Your task to perform on an android device: turn on translation in the chrome app Image 0: 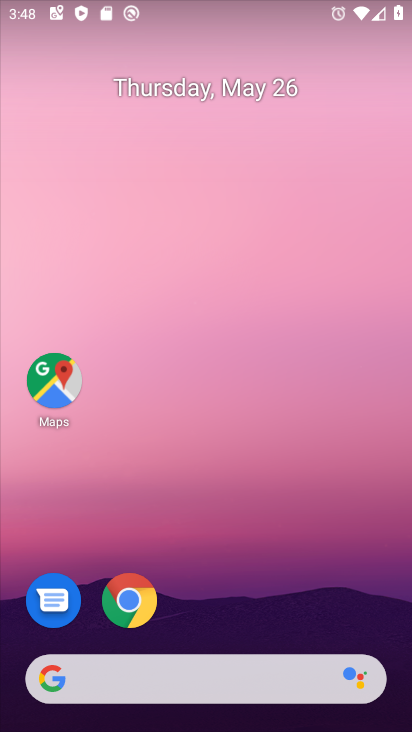
Step 0: click (124, 599)
Your task to perform on an android device: turn on translation in the chrome app Image 1: 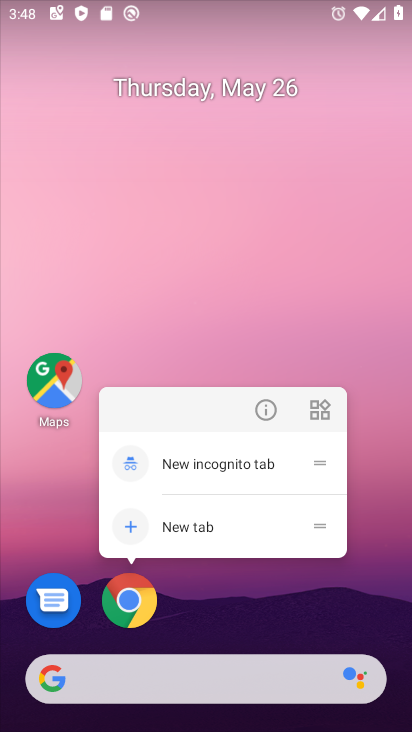
Step 1: click (137, 598)
Your task to perform on an android device: turn on translation in the chrome app Image 2: 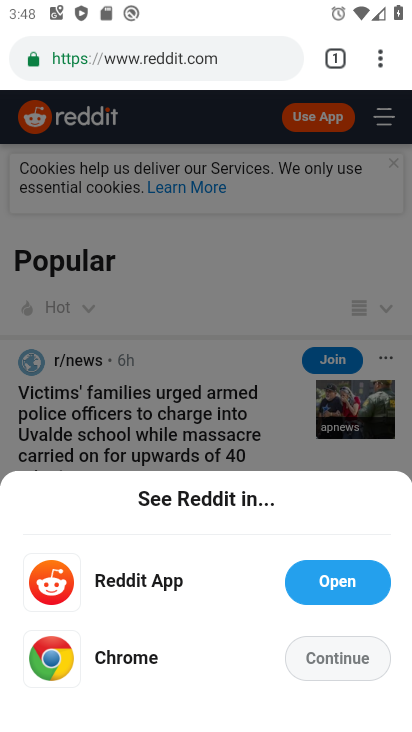
Step 2: click (386, 58)
Your task to perform on an android device: turn on translation in the chrome app Image 3: 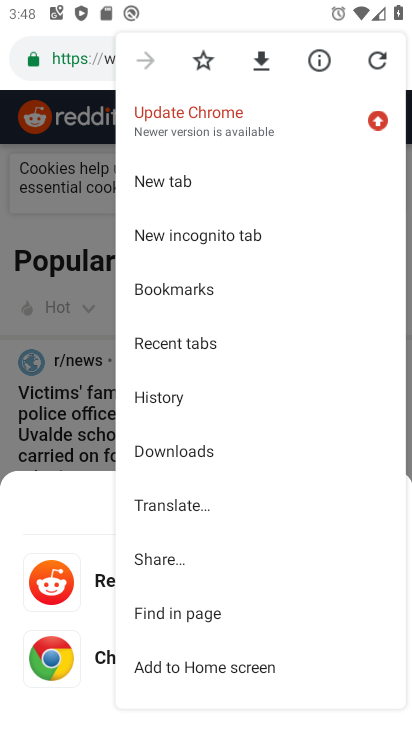
Step 3: drag from (176, 549) to (223, 274)
Your task to perform on an android device: turn on translation in the chrome app Image 4: 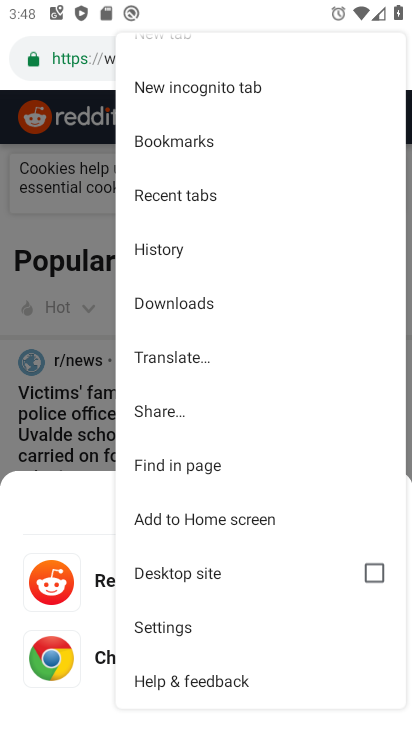
Step 4: click (169, 635)
Your task to perform on an android device: turn on translation in the chrome app Image 5: 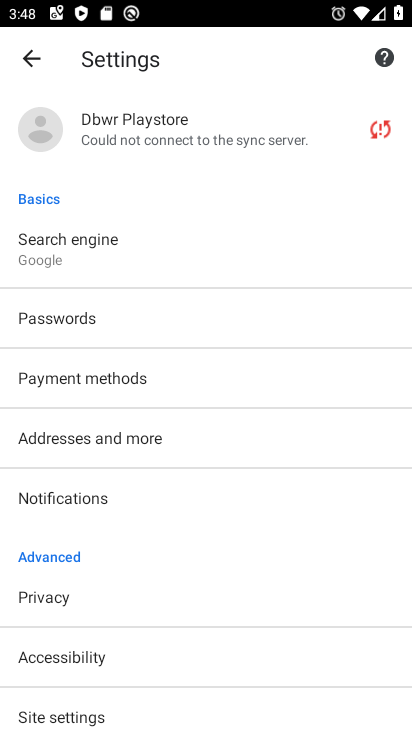
Step 5: drag from (127, 609) to (138, 360)
Your task to perform on an android device: turn on translation in the chrome app Image 6: 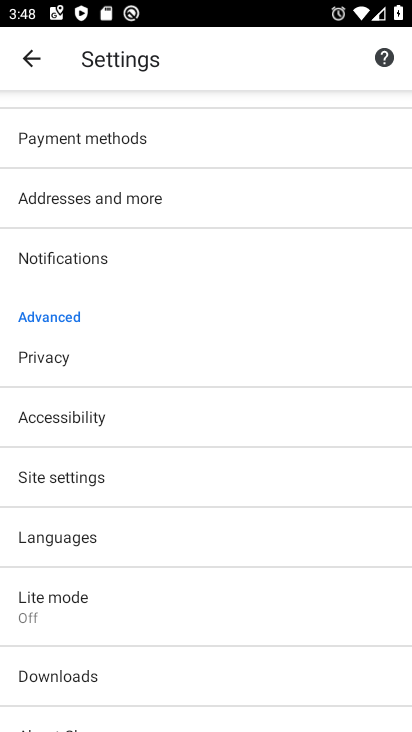
Step 6: click (87, 547)
Your task to perform on an android device: turn on translation in the chrome app Image 7: 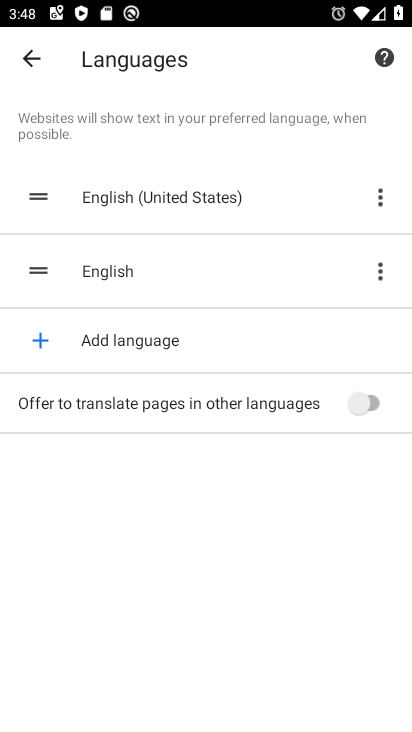
Step 7: click (385, 393)
Your task to perform on an android device: turn on translation in the chrome app Image 8: 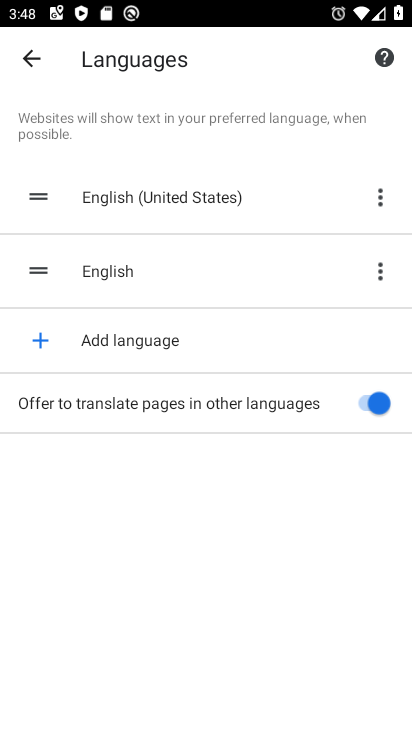
Step 8: task complete